Your task to perform on an android device: show emergency info Image 0: 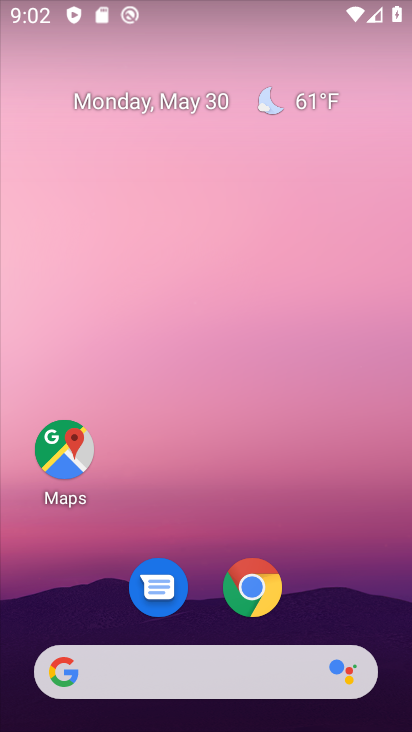
Step 0: drag from (180, 620) to (205, 5)
Your task to perform on an android device: show emergency info Image 1: 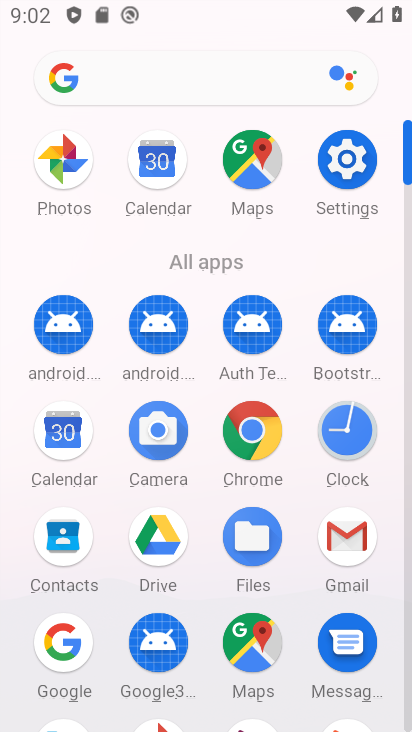
Step 1: click (340, 175)
Your task to perform on an android device: show emergency info Image 2: 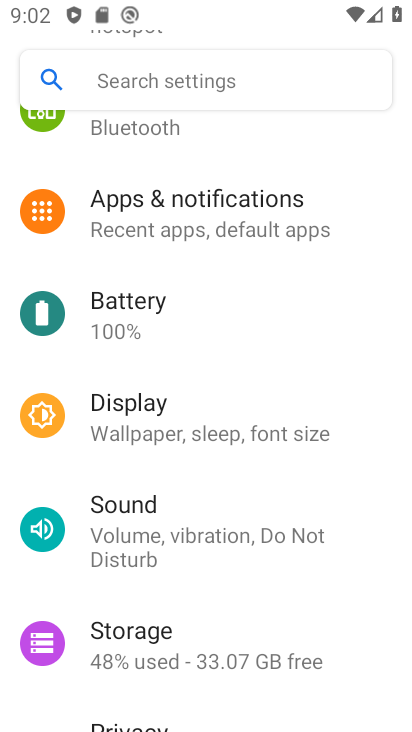
Step 2: drag from (281, 556) to (246, 50)
Your task to perform on an android device: show emergency info Image 3: 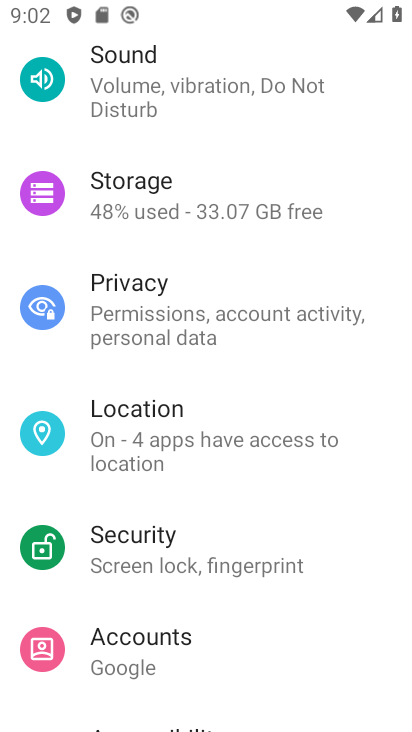
Step 3: drag from (157, 575) to (398, 105)
Your task to perform on an android device: show emergency info Image 4: 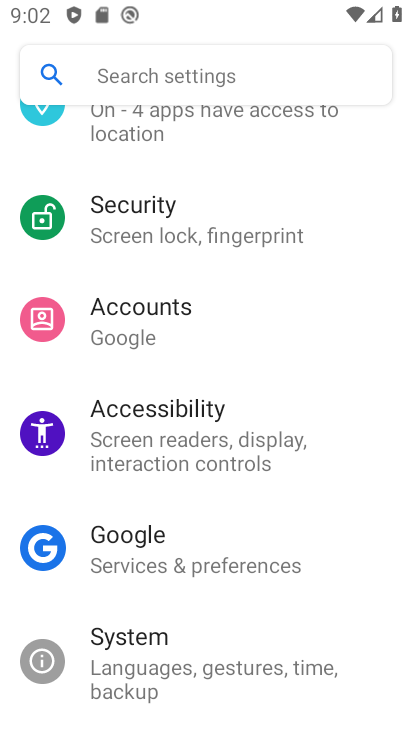
Step 4: drag from (226, 705) to (193, 138)
Your task to perform on an android device: show emergency info Image 5: 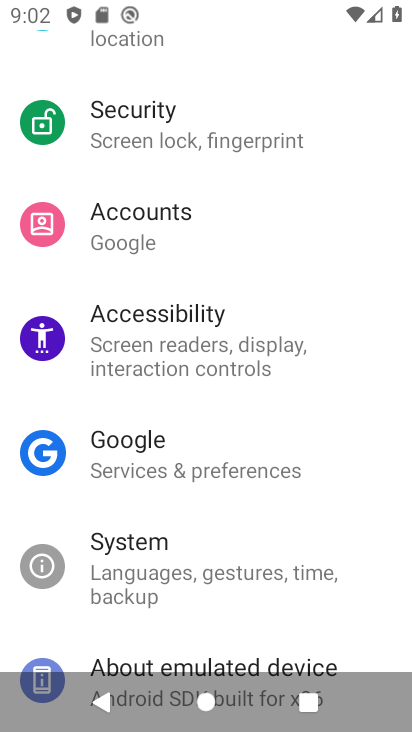
Step 5: click (220, 660)
Your task to perform on an android device: show emergency info Image 6: 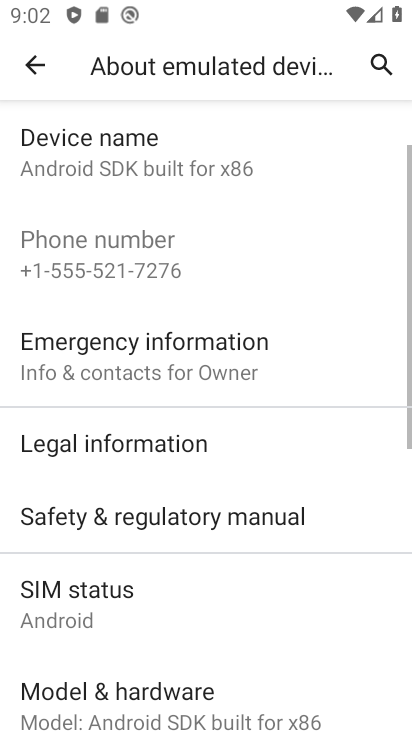
Step 6: click (142, 357)
Your task to perform on an android device: show emergency info Image 7: 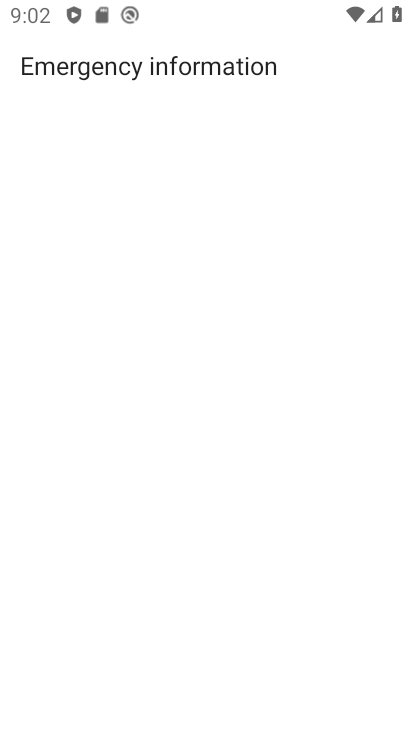
Step 7: task complete